Your task to perform on an android device: Open ESPN.com Image 0: 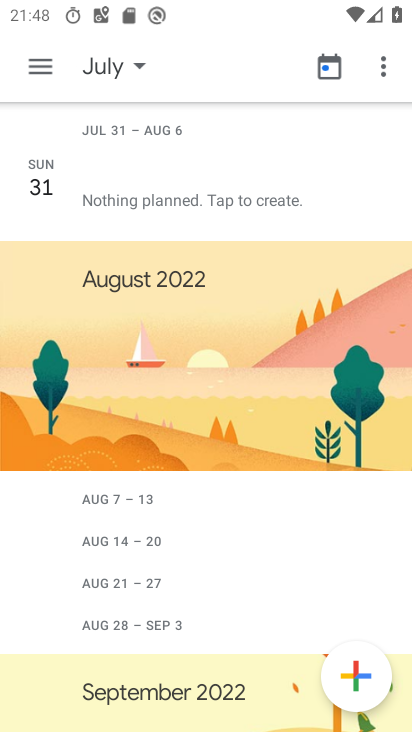
Step 0: press home button
Your task to perform on an android device: Open ESPN.com Image 1: 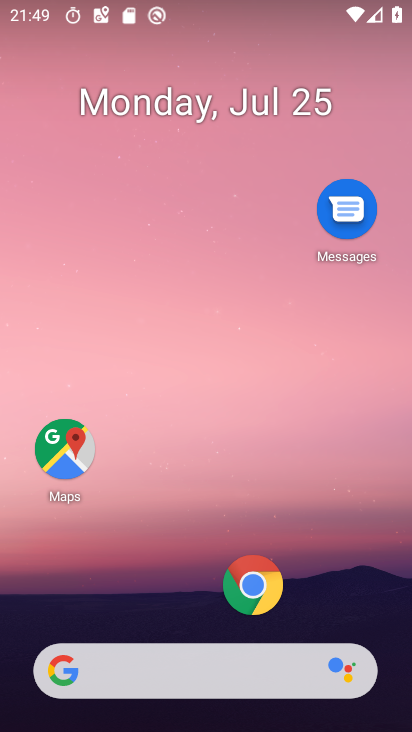
Step 1: click (254, 582)
Your task to perform on an android device: Open ESPN.com Image 2: 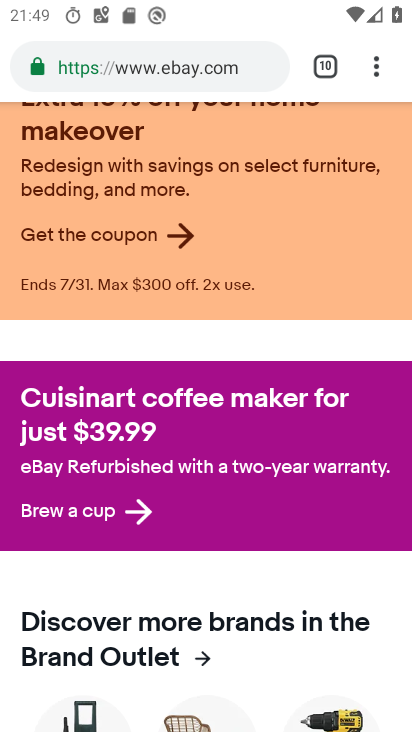
Step 2: drag from (379, 61) to (221, 137)
Your task to perform on an android device: Open ESPN.com Image 3: 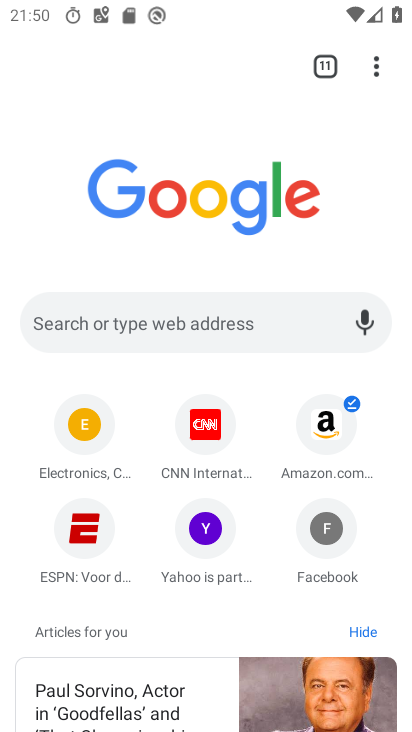
Step 3: click (86, 537)
Your task to perform on an android device: Open ESPN.com Image 4: 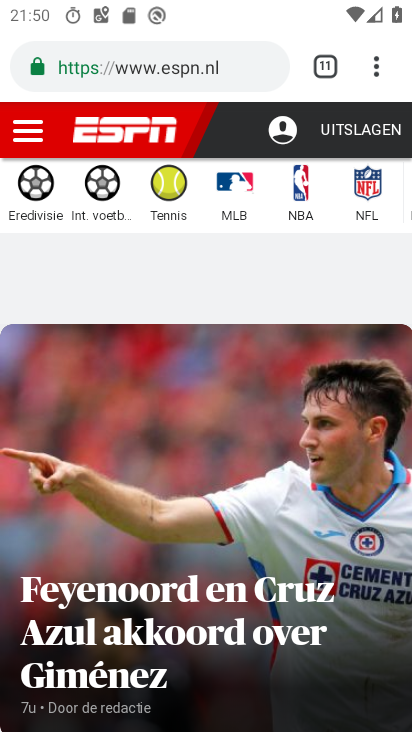
Step 4: task complete